Your task to perform on an android device: Open Youtube and go to "Your channel" Image 0: 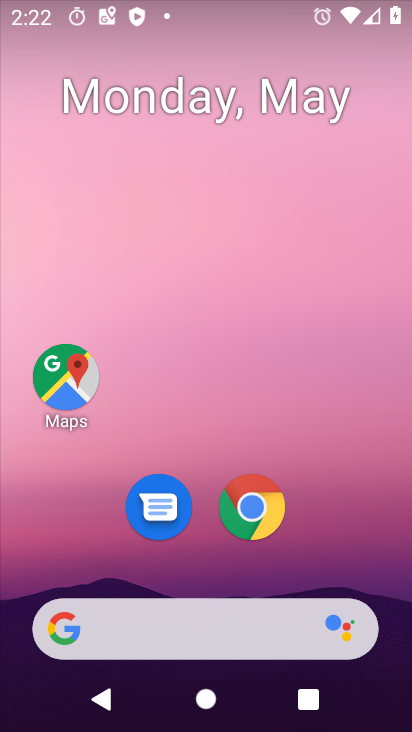
Step 0: drag from (226, 715) to (229, 77)
Your task to perform on an android device: Open Youtube and go to "Your channel" Image 1: 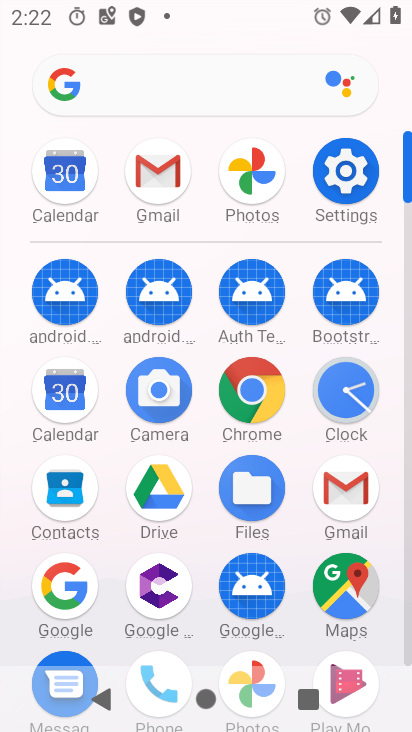
Step 1: drag from (288, 622) to (267, 170)
Your task to perform on an android device: Open Youtube and go to "Your channel" Image 2: 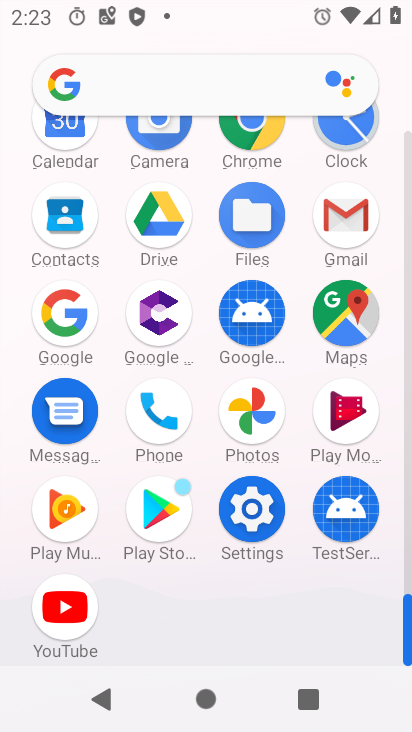
Step 2: click (43, 602)
Your task to perform on an android device: Open Youtube and go to "Your channel" Image 3: 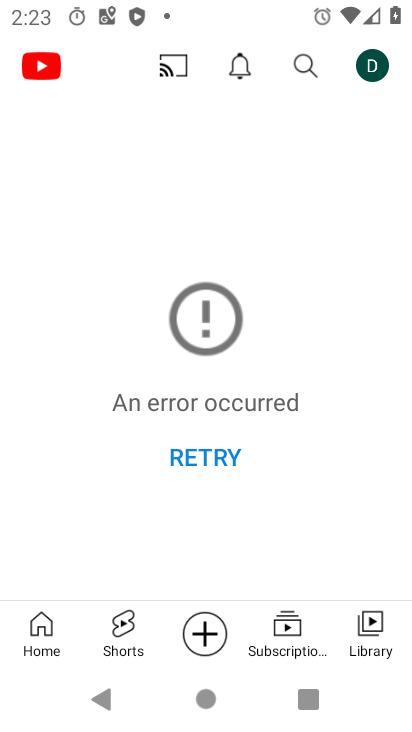
Step 3: click (373, 67)
Your task to perform on an android device: Open Youtube and go to "Your channel" Image 4: 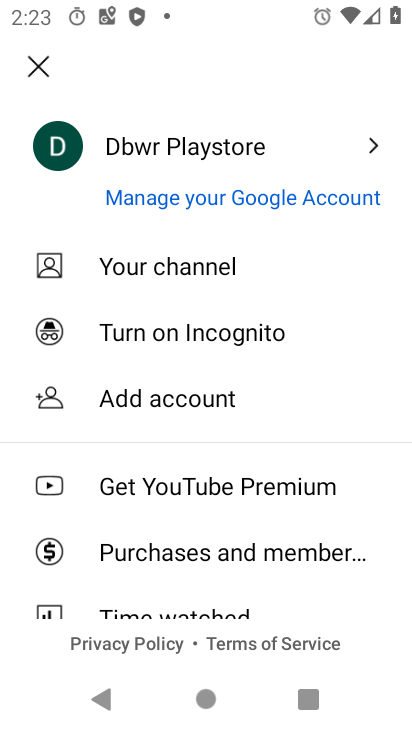
Step 4: click (155, 269)
Your task to perform on an android device: Open Youtube and go to "Your channel" Image 5: 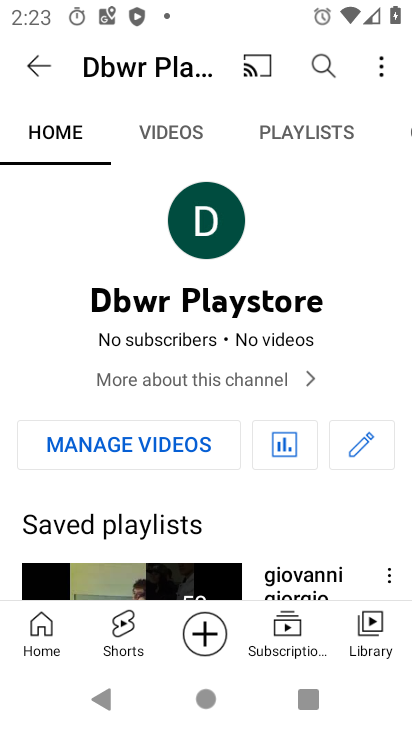
Step 5: task complete